Your task to perform on an android device: Check the weather Image 0: 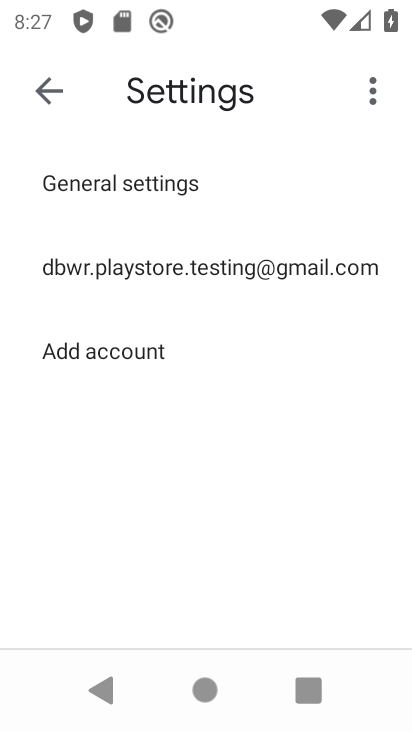
Step 0: press home button
Your task to perform on an android device: Check the weather Image 1: 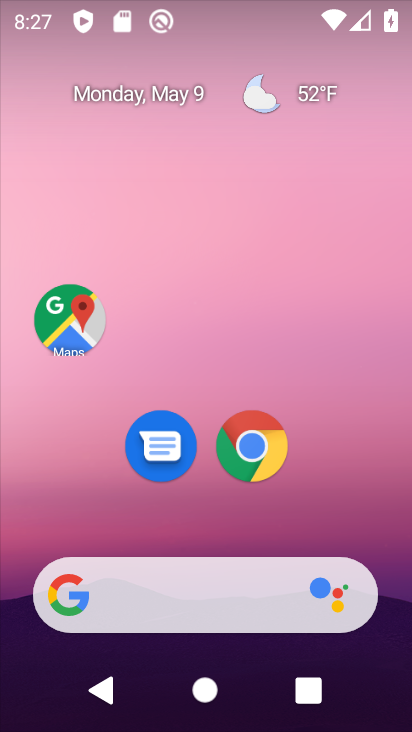
Step 1: click (311, 95)
Your task to perform on an android device: Check the weather Image 2: 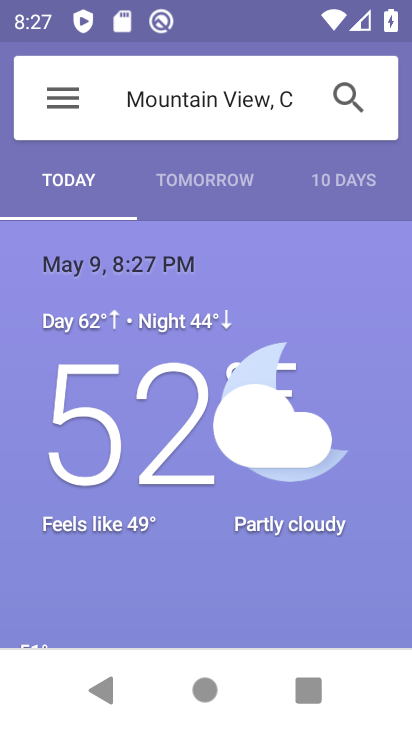
Step 2: task complete